Your task to perform on an android device: Open Google Chrome and open the bookmarks view Image 0: 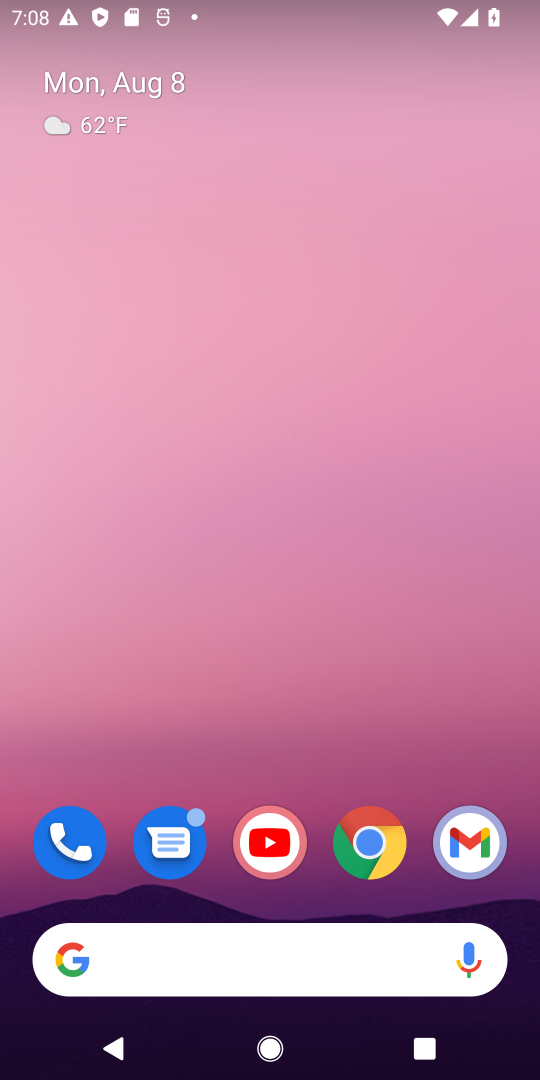
Step 0: click (365, 854)
Your task to perform on an android device: Open Google Chrome and open the bookmarks view Image 1: 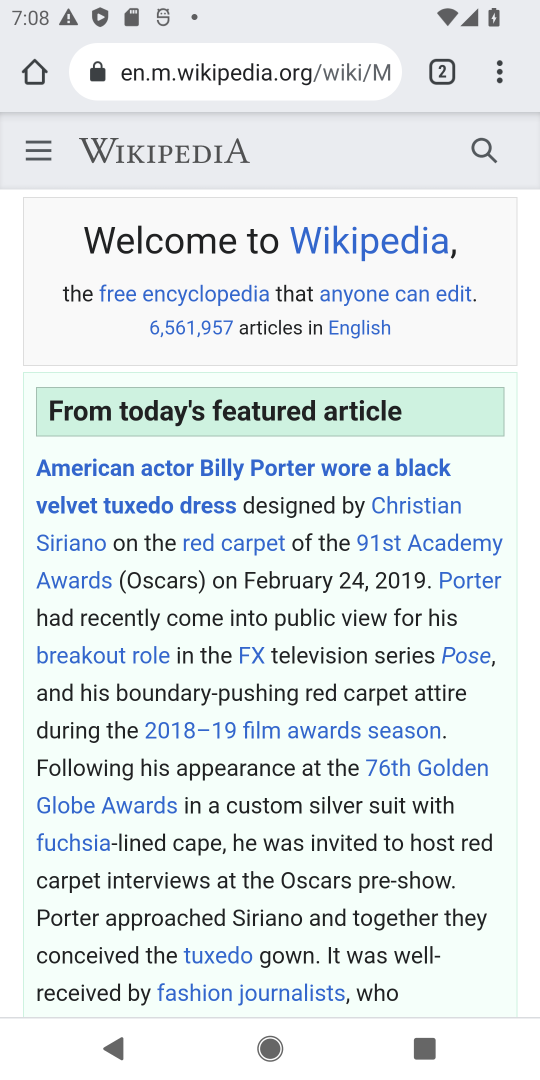
Step 1: click (498, 64)
Your task to perform on an android device: Open Google Chrome and open the bookmarks view Image 2: 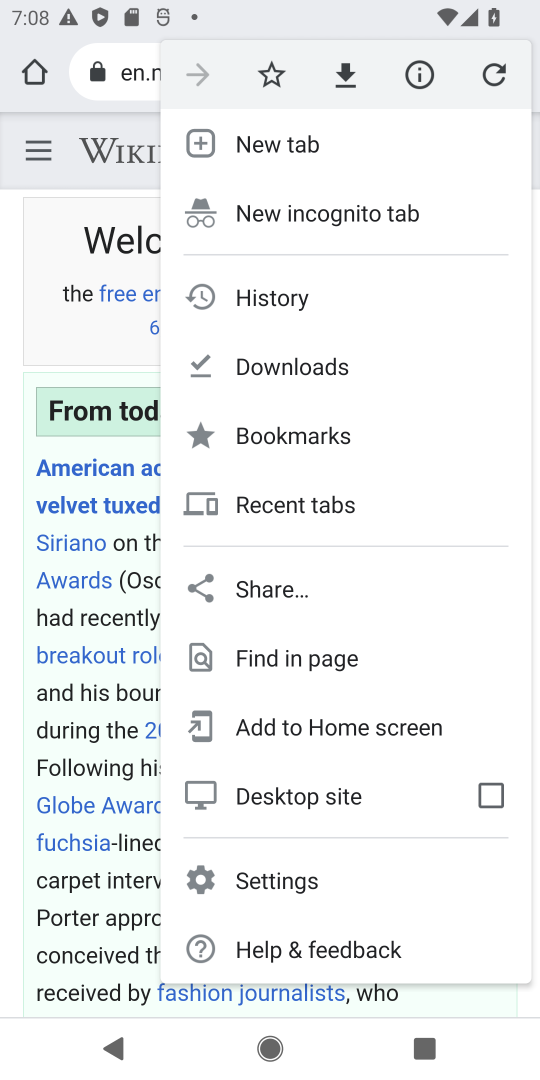
Step 2: click (330, 427)
Your task to perform on an android device: Open Google Chrome and open the bookmarks view Image 3: 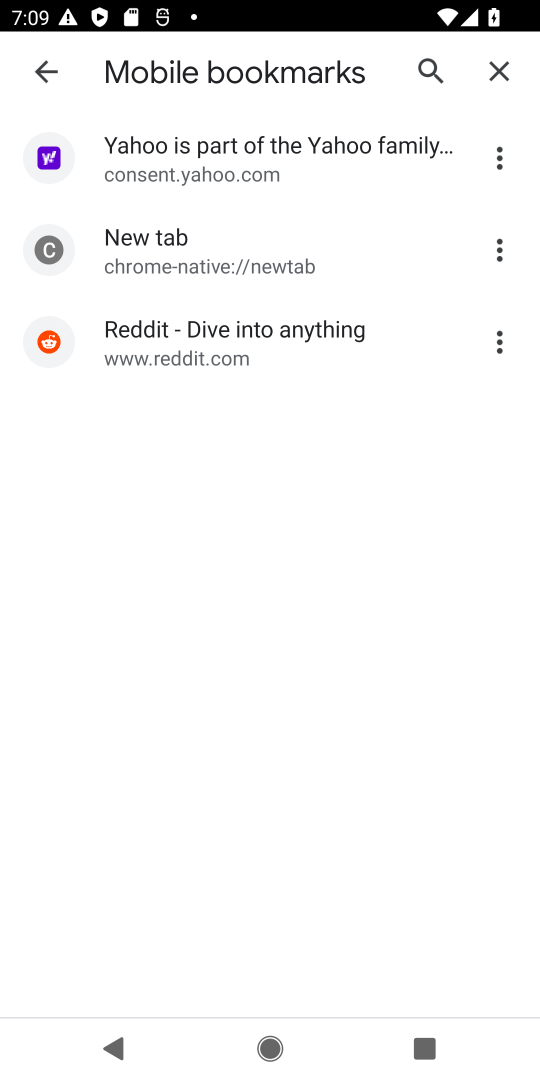
Step 3: click (330, 427)
Your task to perform on an android device: Open Google Chrome and open the bookmarks view Image 4: 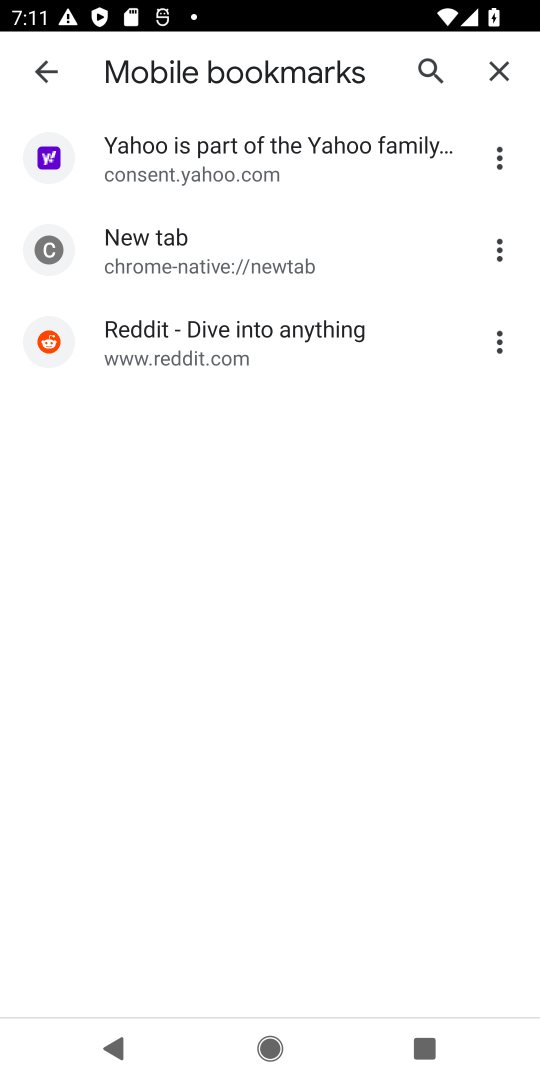
Step 4: task complete